Your task to perform on an android device: visit the assistant section in the google photos Image 0: 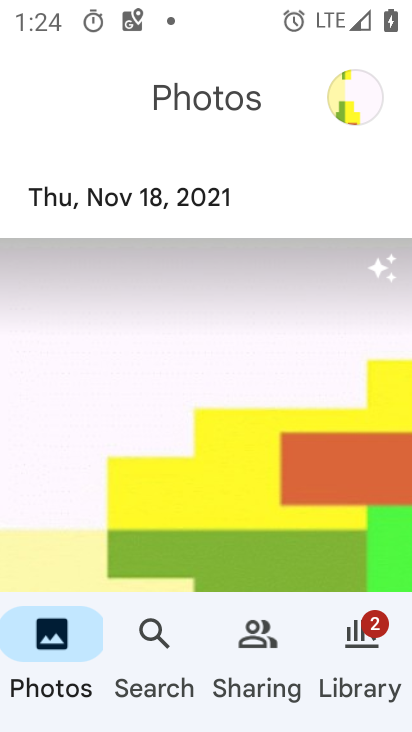
Step 0: press home button
Your task to perform on an android device: visit the assistant section in the google photos Image 1: 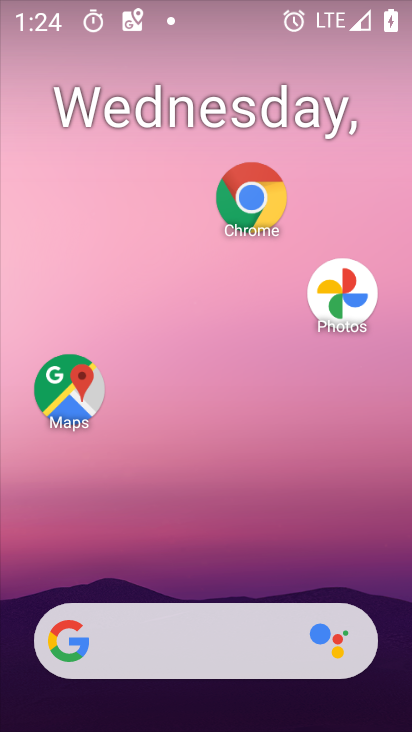
Step 1: drag from (217, 644) to (272, 162)
Your task to perform on an android device: visit the assistant section in the google photos Image 2: 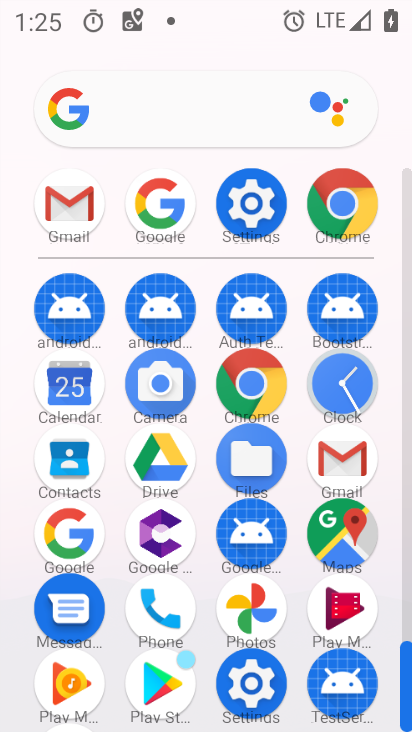
Step 2: click (252, 617)
Your task to perform on an android device: visit the assistant section in the google photos Image 3: 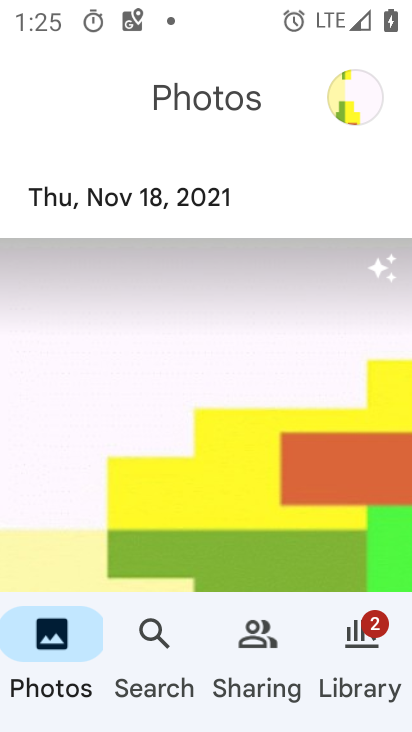
Step 3: click (360, 100)
Your task to perform on an android device: visit the assistant section in the google photos Image 4: 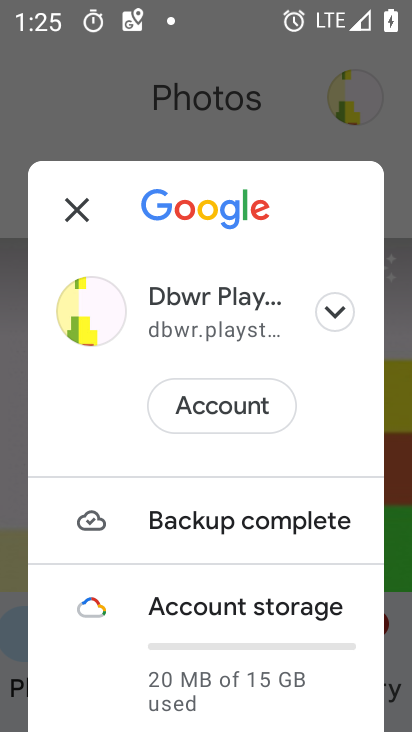
Step 4: task complete